Your task to perform on an android device: Toggle the flashlight Image 0: 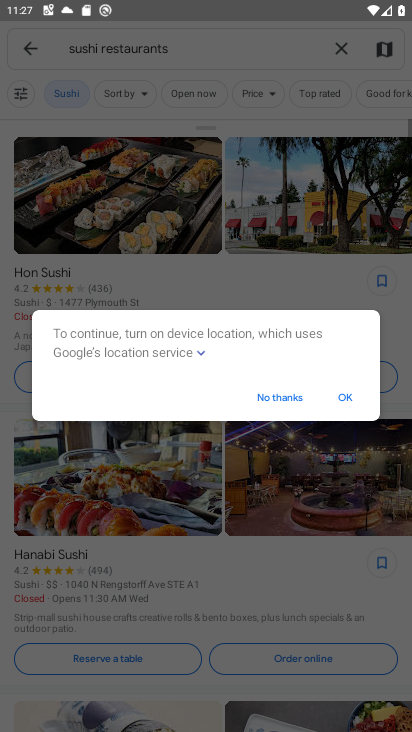
Step 0: press home button
Your task to perform on an android device: Toggle the flashlight Image 1: 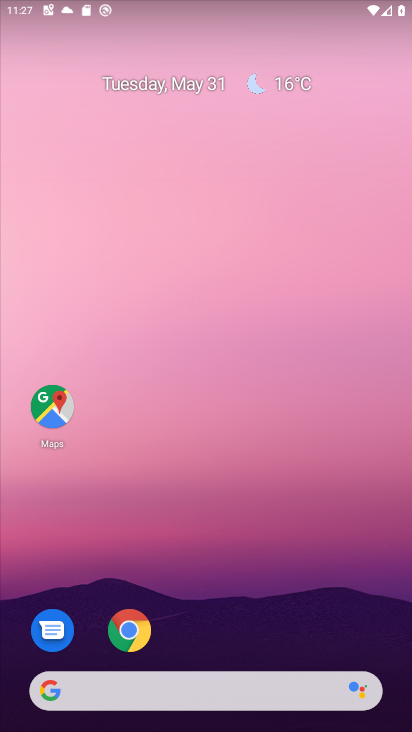
Step 1: drag from (232, 488) to (210, 17)
Your task to perform on an android device: Toggle the flashlight Image 2: 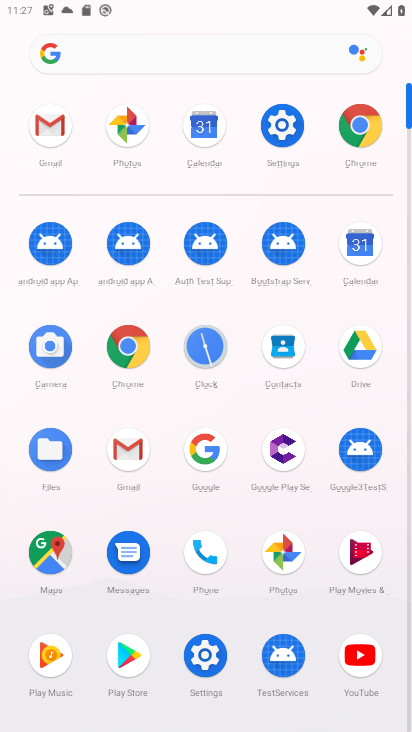
Step 2: click (282, 129)
Your task to perform on an android device: Toggle the flashlight Image 3: 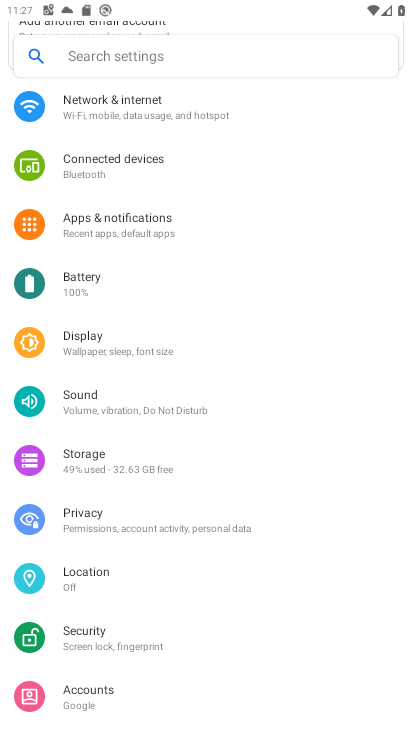
Step 3: click (111, 349)
Your task to perform on an android device: Toggle the flashlight Image 4: 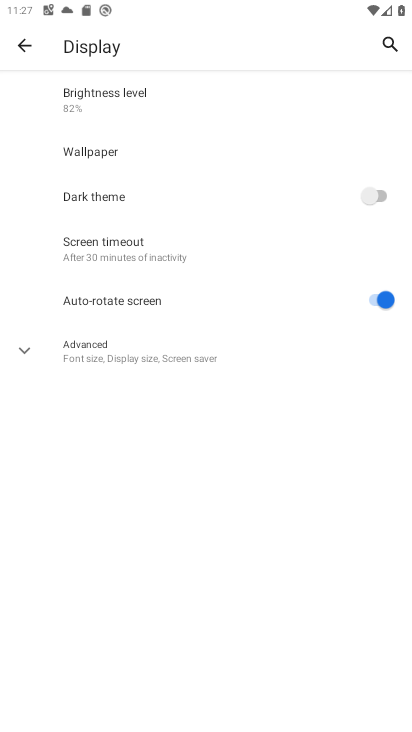
Step 4: task complete